Your task to perform on an android device: move a message to another label in the gmail app Image 0: 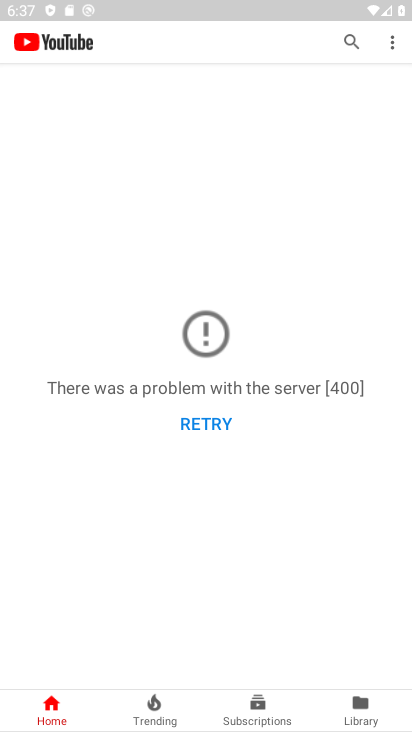
Step 0: press home button
Your task to perform on an android device: move a message to another label in the gmail app Image 1: 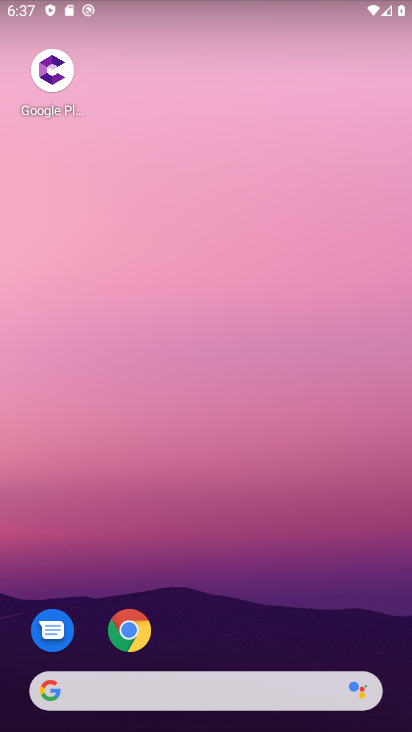
Step 1: drag from (322, 603) to (205, 11)
Your task to perform on an android device: move a message to another label in the gmail app Image 2: 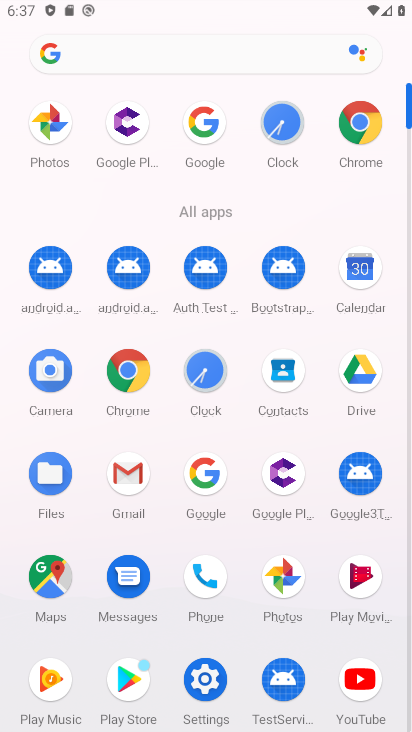
Step 2: click (107, 468)
Your task to perform on an android device: move a message to another label in the gmail app Image 3: 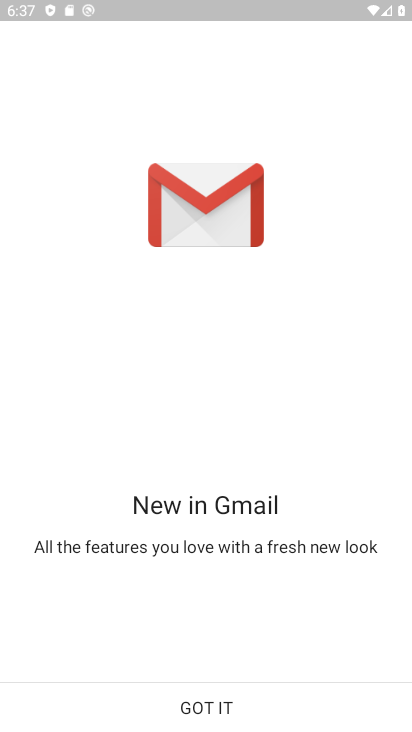
Step 3: click (217, 697)
Your task to perform on an android device: move a message to another label in the gmail app Image 4: 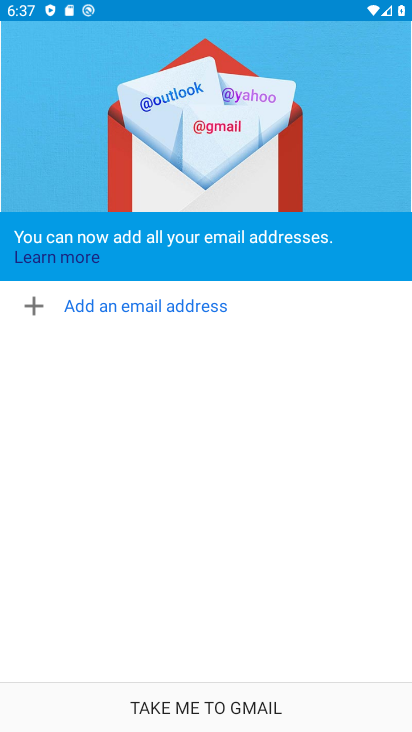
Step 4: click (217, 697)
Your task to perform on an android device: move a message to another label in the gmail app Image 5: 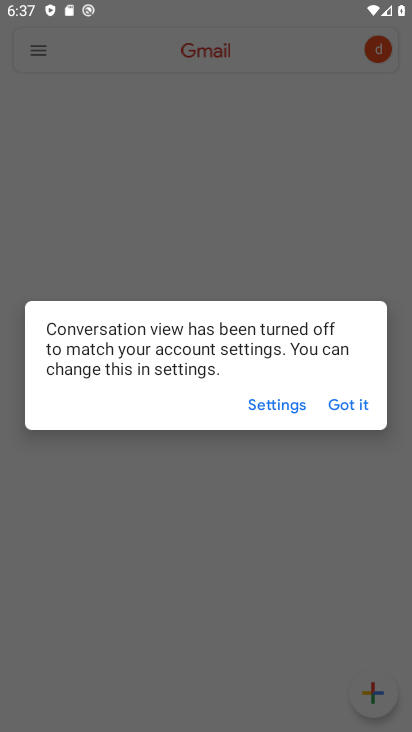
Step 5: click (350, 405)
Your task to perform on an android device: move a message to another label in the gmail app Image 6: 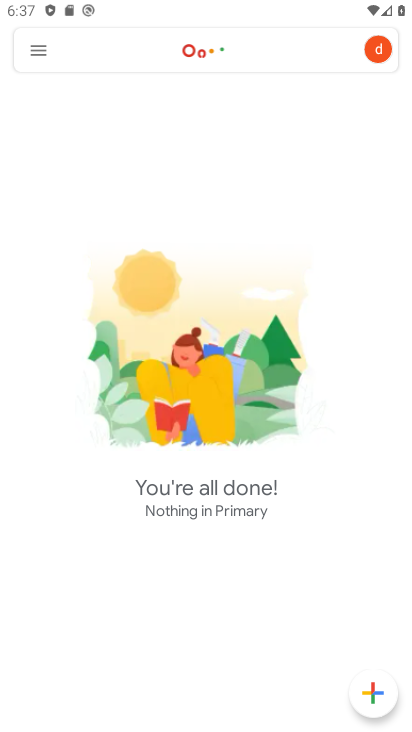
Step 6: task complete